Your task to perform on an android device: Open display settings Image 0: 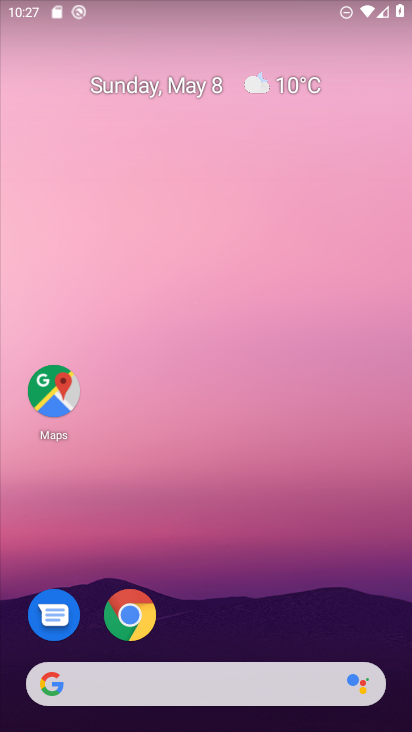
Step 0: drag from (281, 567) to (212, 116)
Your task to perform on an android device: Open display settings Image 1: 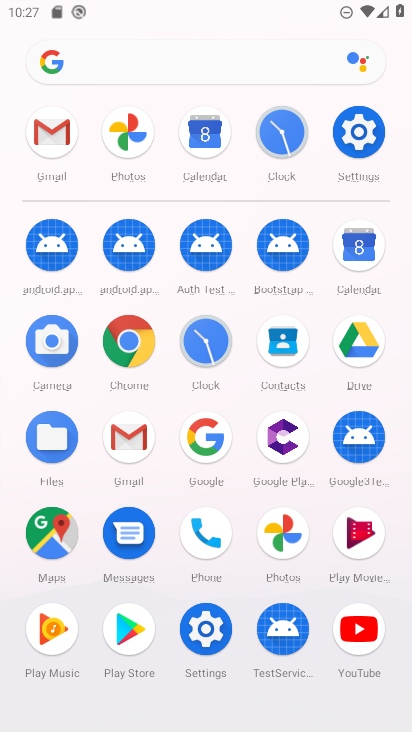
Step 1: click (365, 130)
Your task to perform on an android device: Open display settings Image 2: 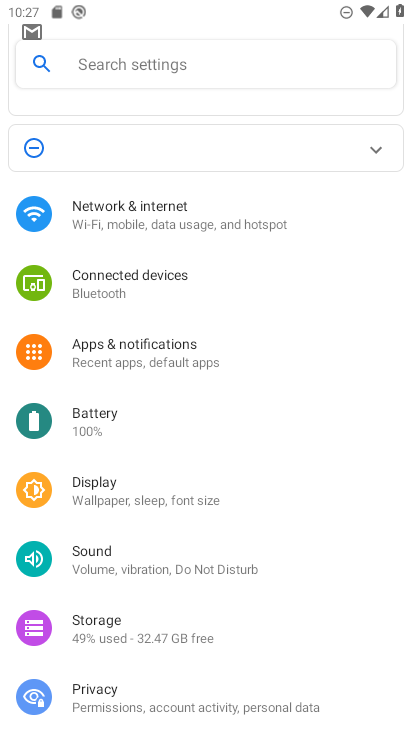
Step 2: click (163, 500)
Your task to perform on an android device: Open display settings Image 3: 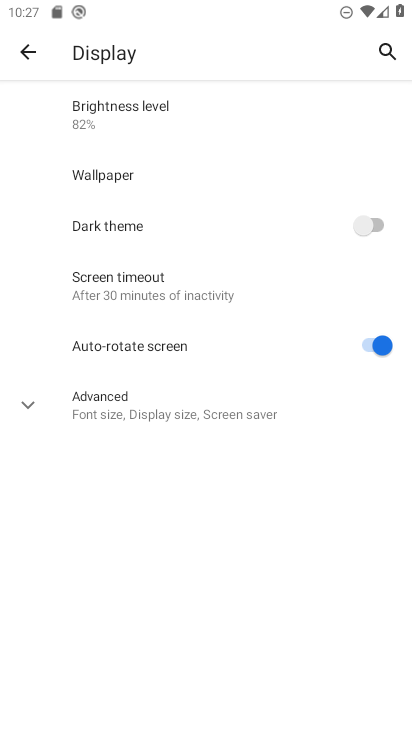
Step 3: task complete